Your task to perform on an android device: Open the calendar and show me this week's events? Image 0: 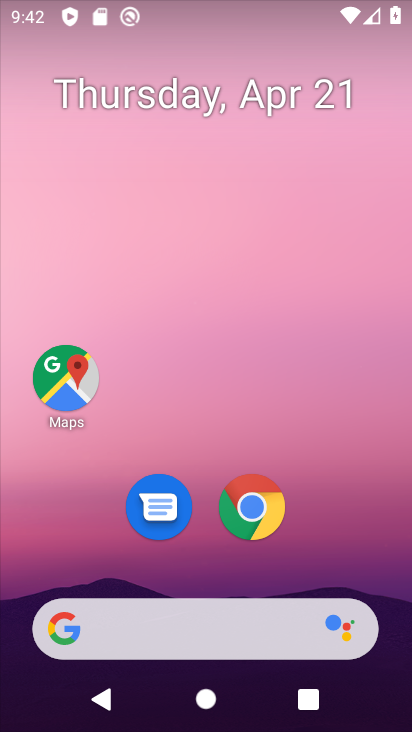
Step 0: drag from (385, 531) to (362, 63)
Your task to perform on an android device: Open the calendar and show me this week's events? Image 1: 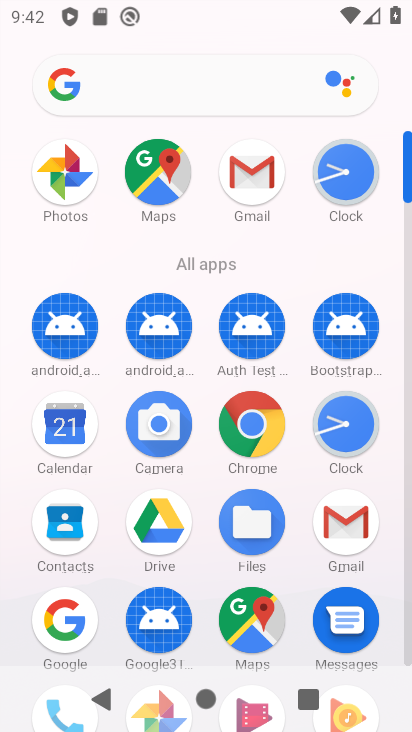
Step 1: drag from (324, 557) to (381, 339)
Your task to perform on an android device: Open the calendar and show me this week's events? Image 2: 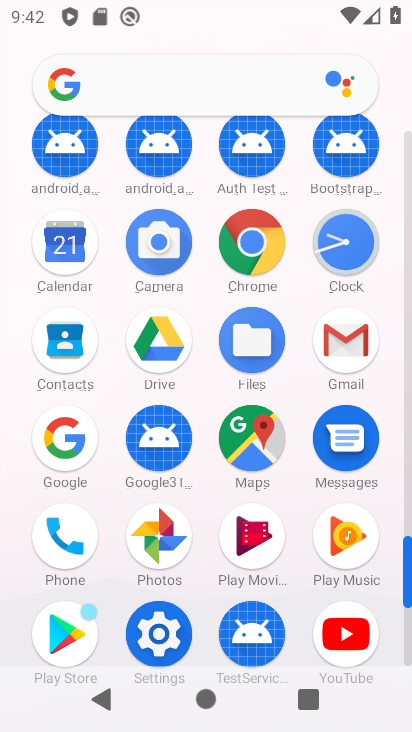
Step 2: click (65, 212)
Your task to perform on an android device: Open the calendar and show me this week's events? Image 3: 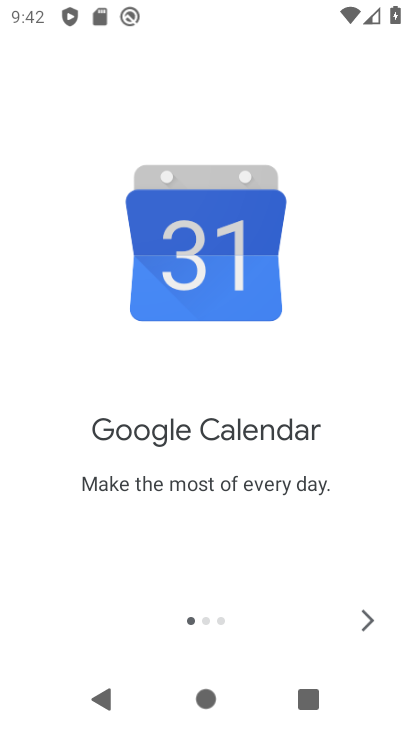
Step 3: click (362, 622)
Your task to perform on an android device: Open the calendar and show me this week's events? Image 4: 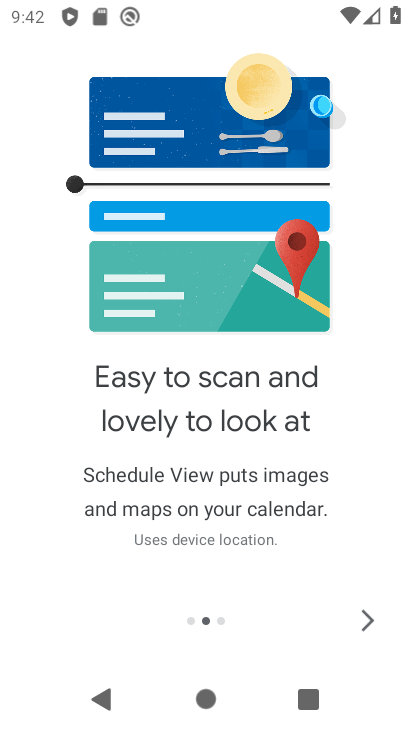
Step 4: click (362, 622)
Your task to perform on an android device: Open the calendar and show me this week's events? Image 5: 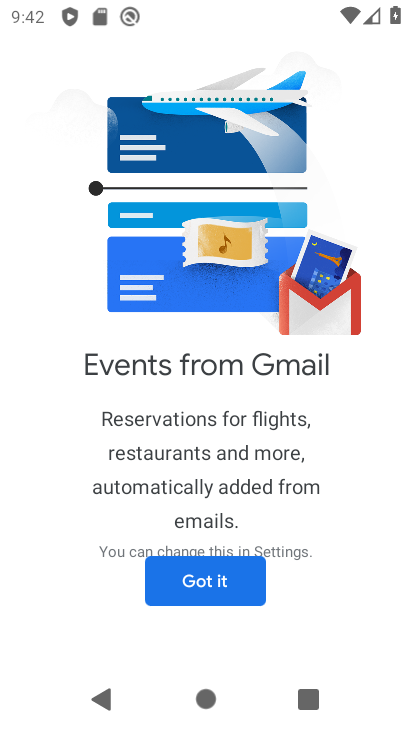
Step 5: click (179, 587)
Your task to perform on an android device: Open the calendar and show me this week's events? Image 6: 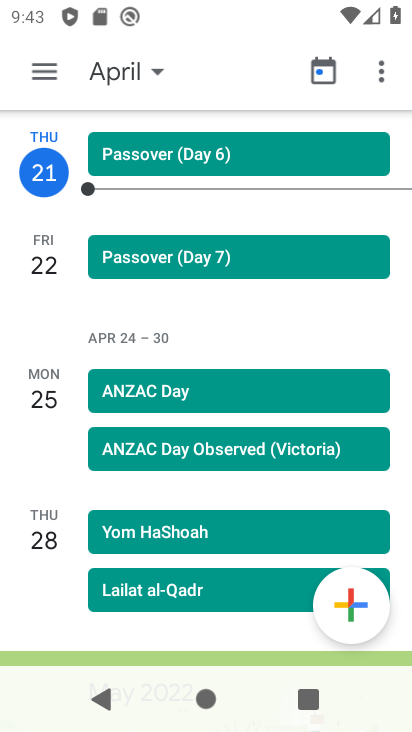
Step 6: click (119, 76)
Your task to perform on an android device: Open the calendar and show me this week's events? Image 7: 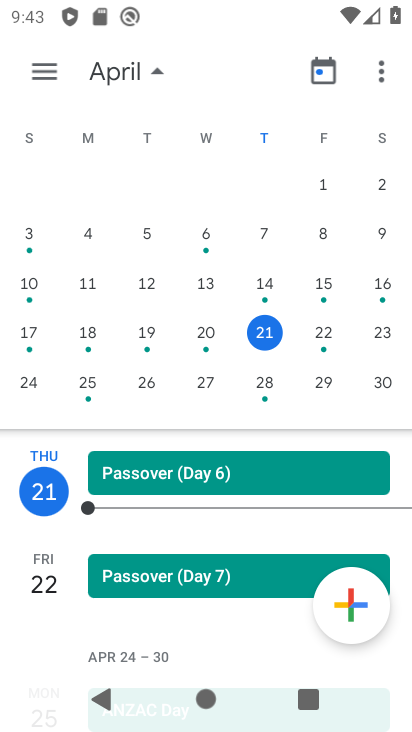
Step 7: click (87, 375)
Your task to perform on an android device: Open the calendar and show me this week's events? Image 8: 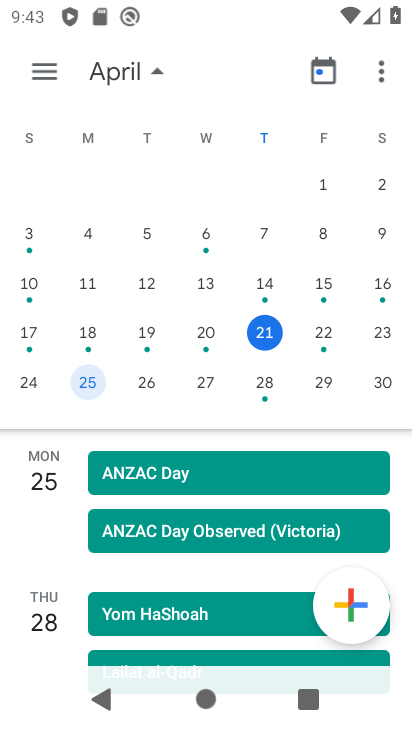
Step 8: task complete